Your task to perform on an android device: check battery use Image 0: 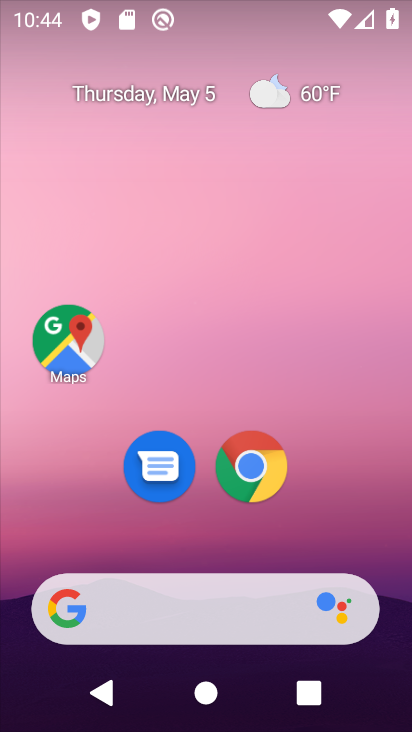
Step 0: drag from (193, 580) to (282, 124)
Your task to perform on an android device: check battery use Image 1: 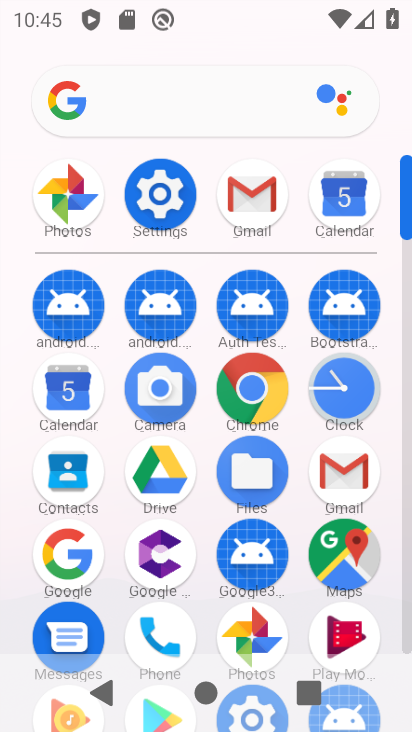
Step 1: click (164, 188)
Your task to perform on an android device: check battery use Image 2: 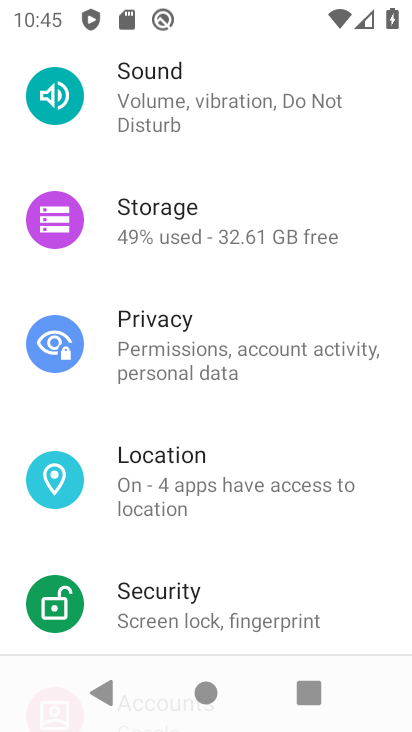
Step 2: drag from (200, 97) to (249, 505)
Your task to perform on an android device: check battery use Image 3: 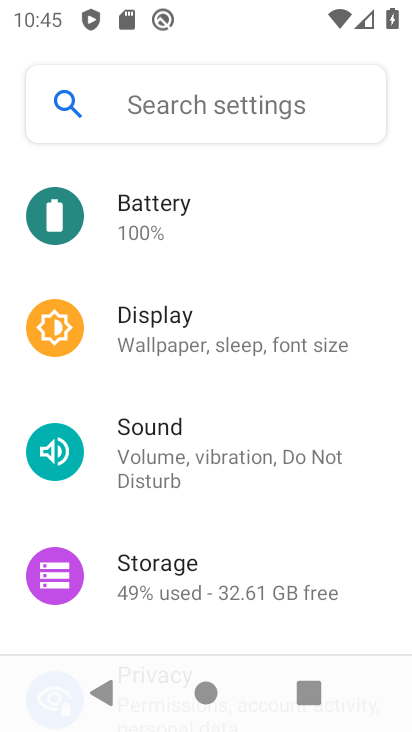
Step 3: click (172, 217)
Your task to perform on an android device: check battery use Image 4: 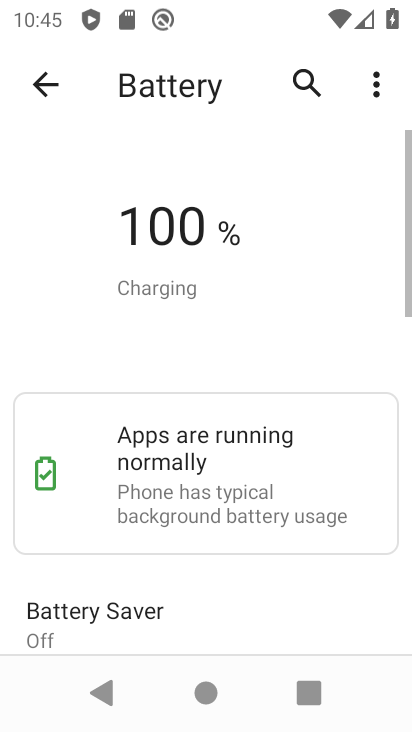
Step 4: click (378, 90)
Your task to perform on an android device: check battery use Image 5: 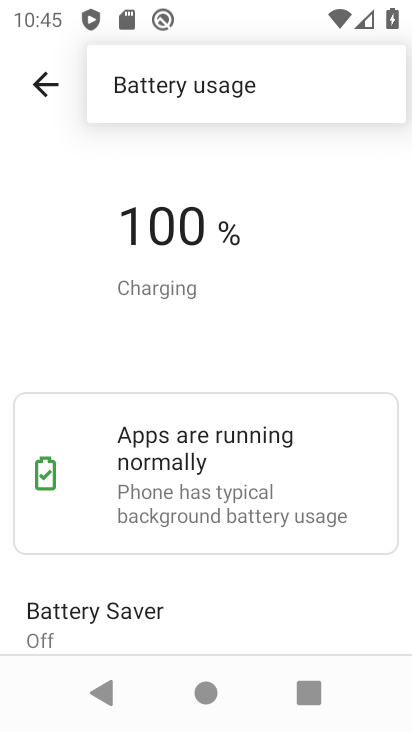
Step 5: click (282, 84)
Your task to perform on an android device: check battery use Image 6: 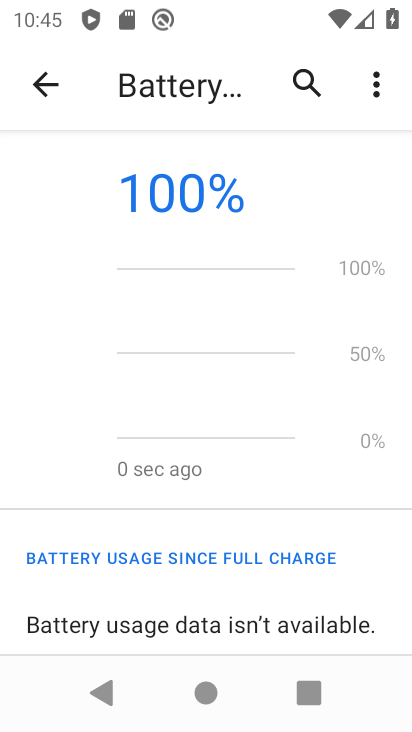
Step 6: task complete